Your task to perform on an android device: turn off sleep mode Image 0: 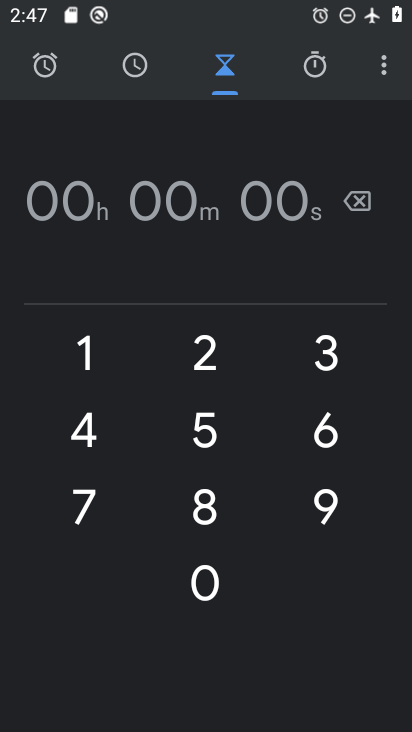
Step 0: press home button
Your task to perform on an android device: turn off sleep mode Image 1: 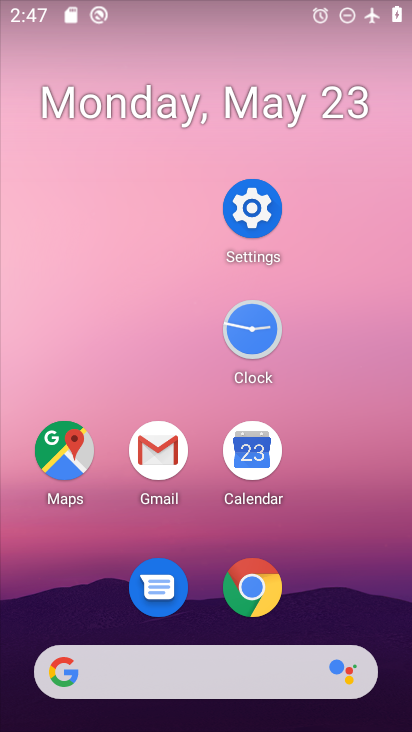
Step 1: click (272, 234)
Your task to perform on an android device: turn off sleep mode Image 2: 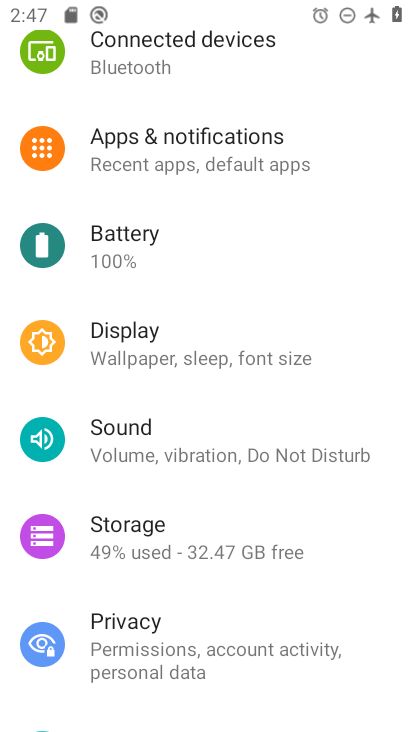
Step 2: click (270, 352)
Your task to perform on an android device: turn off sleep mode Image 3: 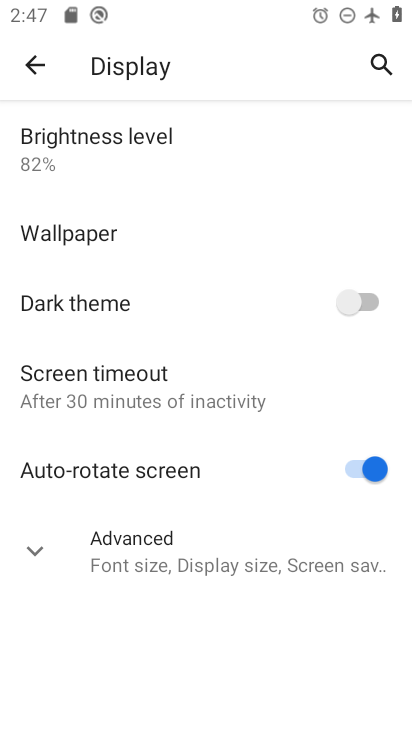
Step 3: click (249, 393)
Your task to perform on an android device: turn off sleep mode Image 4: 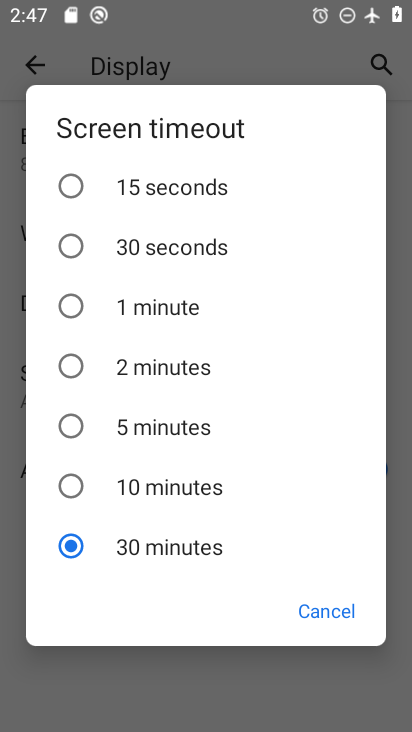
Step 4: click (204, 205)
Your task to perform on an android device: turn off sleep mode Image 5: 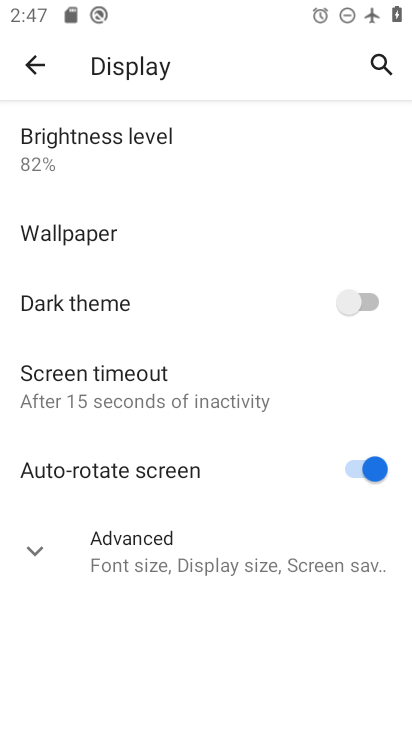
Step 5: task complete